Your task to perform on an android device: open device folders in google photos Image 0: 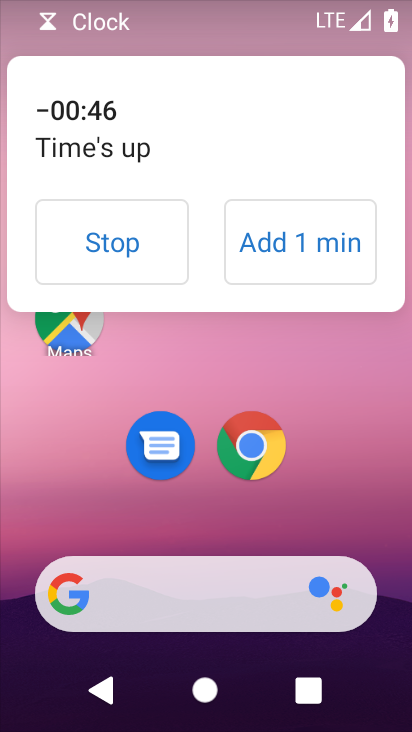
Step 0: press home button
Your task to perform on an android device: open device folders in google photos Image 1: 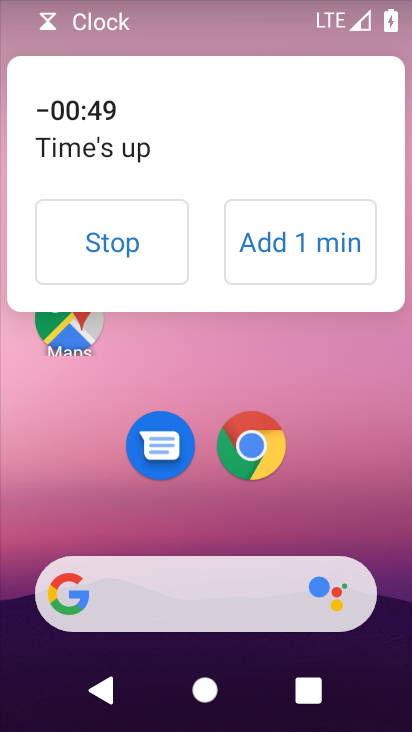
Step 1: click (101, 244)
Your task to perform on an android device: open device folders in google photos Image 2: 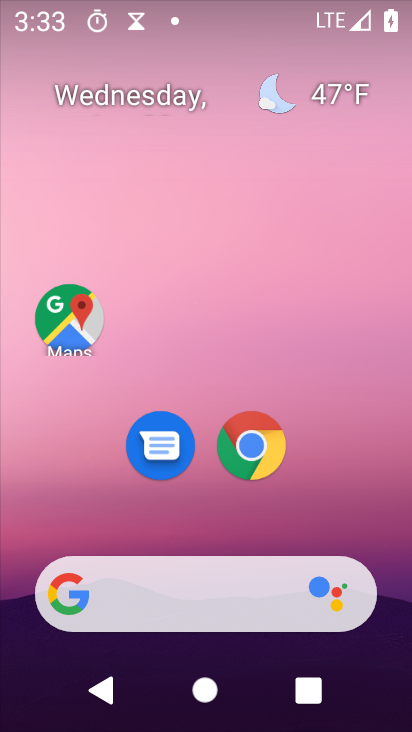
Step 2: drag from (383, 568) to (375, 8)
Your task to perform on an android device: open device folders in google photos Image 3: 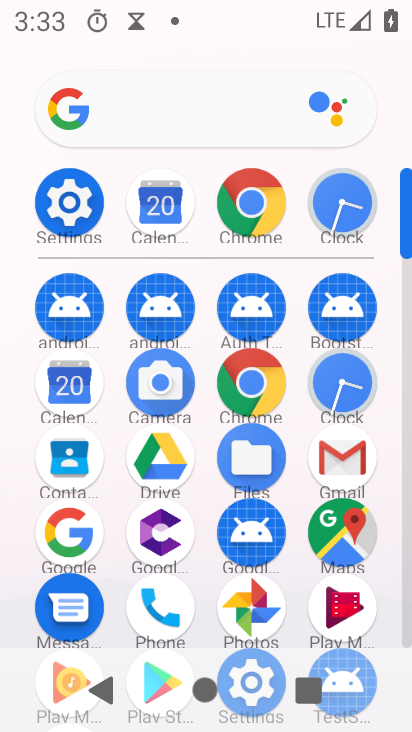
Step 3: click (254, 598)
Your task to perform on an android device: open device folders in google photos Image 4: 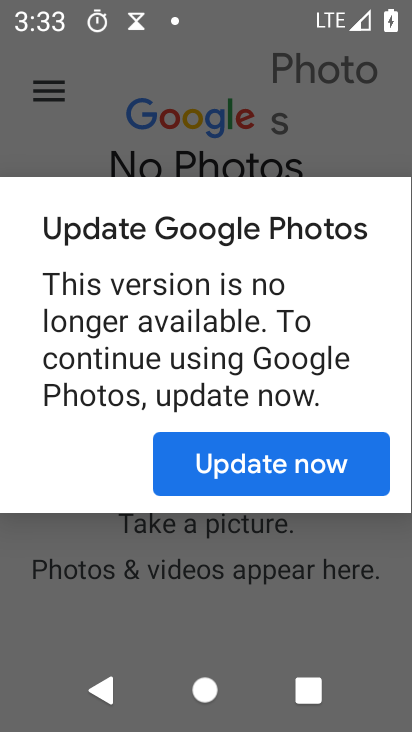
Step 4: click (287, 475)
Your task to perform on an android device: open device folders in google photos Image 5: 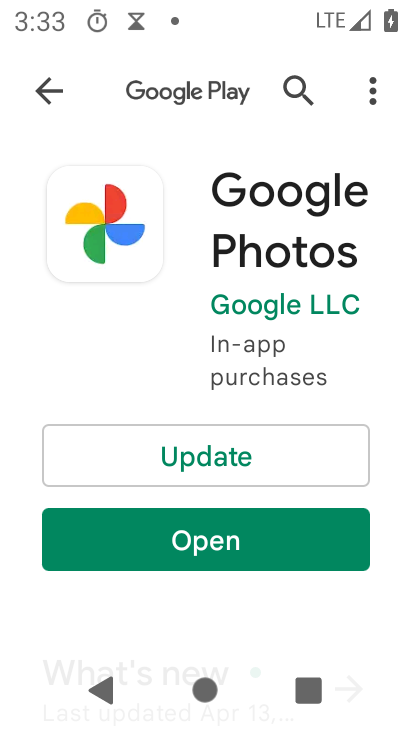
Step 5: click (204, 543)
Your task to perform on an android device: open device folders in google photos Image 6: 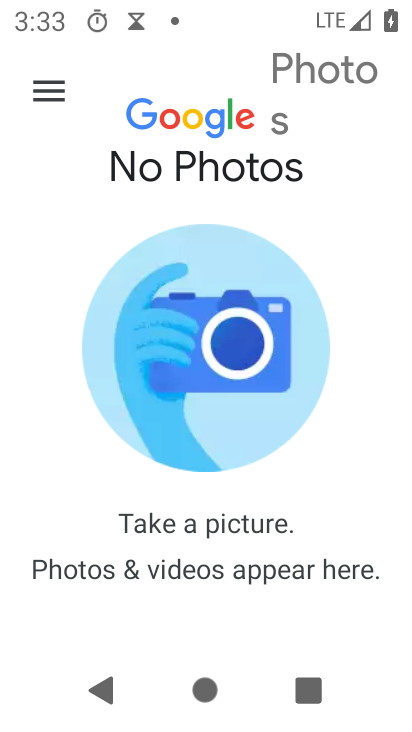
Step 6: click (59, 96)
Your task to perform on an android device: open device folders in google photos Image 7: 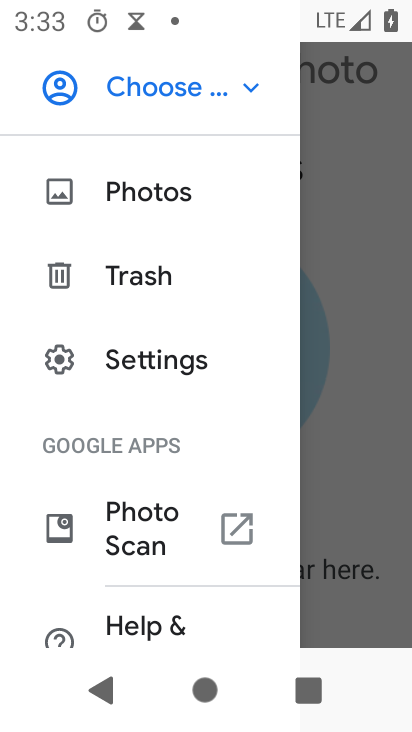
Step 7: drag from (208, 255) to (197, 503)
Your task to perform on an android device: open device folders in google photos Image 8: 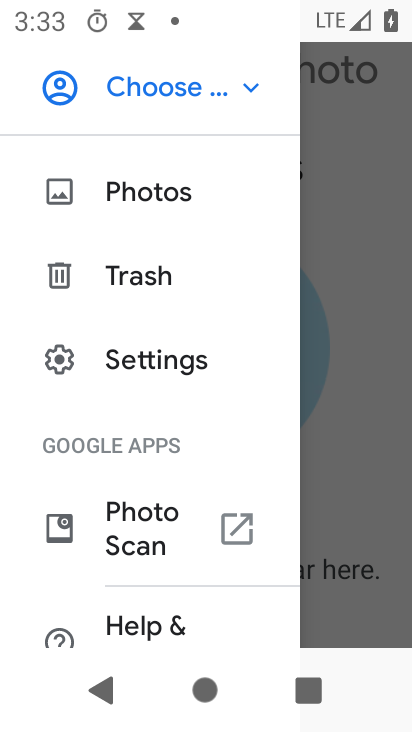
Step 8: drag from (179, 222) to (172, 510)
Your task to perform on an android device: open device folders in google photos Image 9: 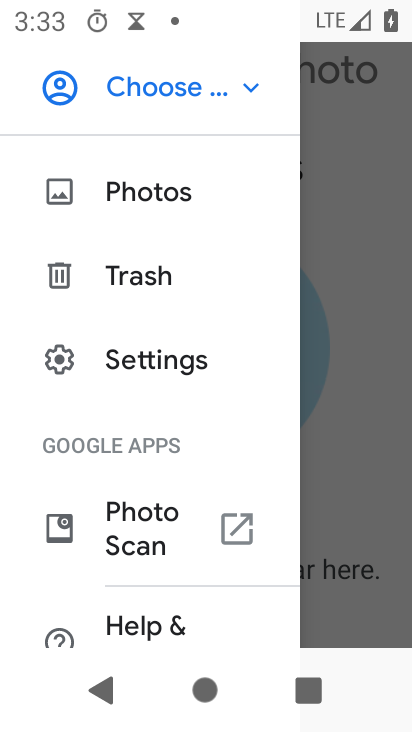
Step 9: drag from (168, 335) to (168, 174)
Your task to perform on an android device: open device folders in google photos Image 10: 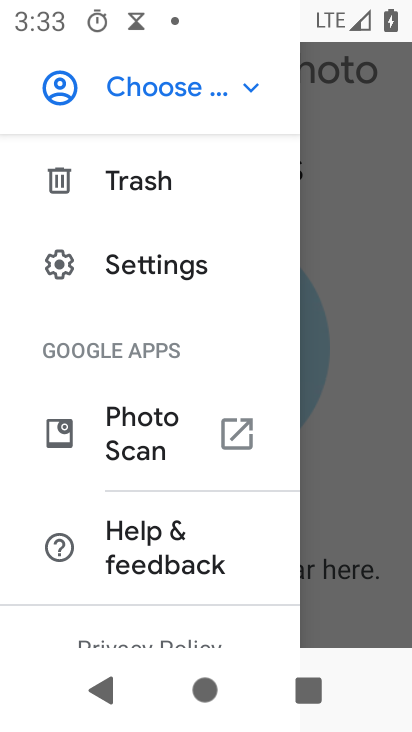
Step 10: drag from (122, 493) to (152, 218)
Your task to perform on an android device: open device folders in google photos Image 11: 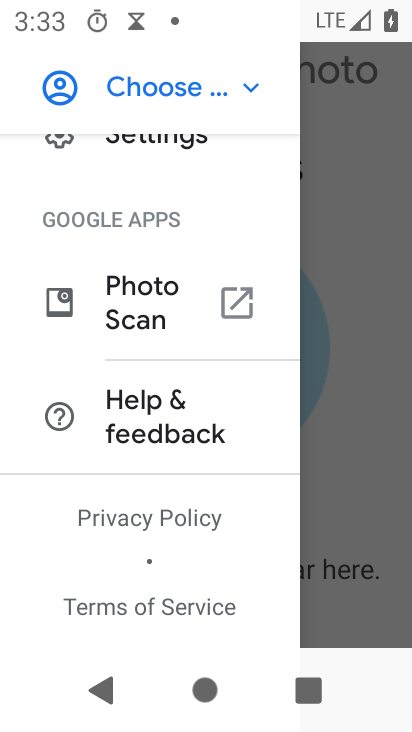
Step 11: drag from (145, 253) to (169, 599)
Your task to perform on an android device: open device folders in google photos Image 12: 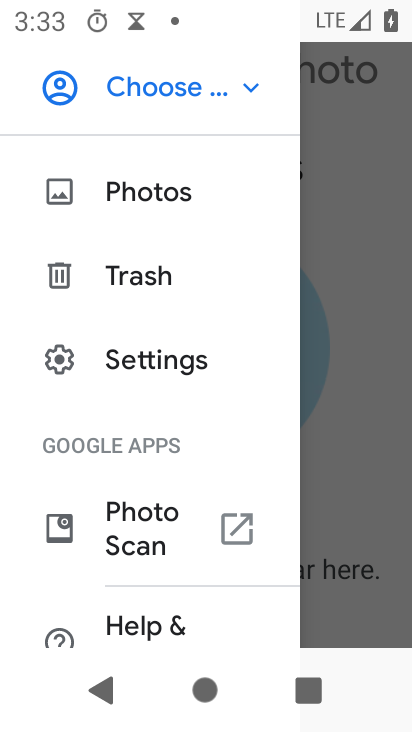
Step 12: drag from (137, 228) to (153, 534)
Your task to perform on an android device: open device folders in google photos Image 13: 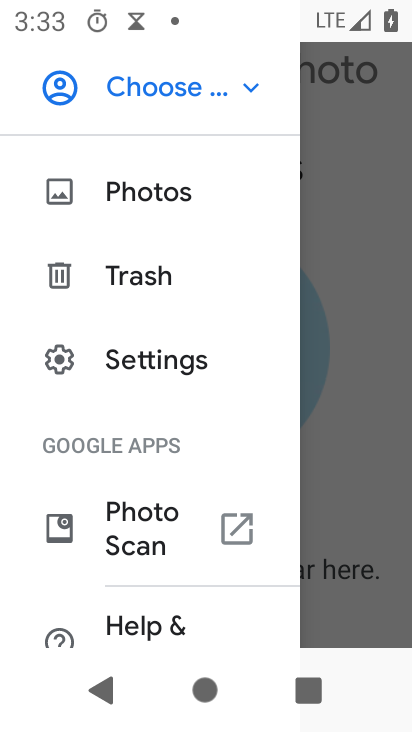
Step 13: drag from (230, 272) to (165, 515)
Your task to perform on an android device: open device folders in google photos Image 14: 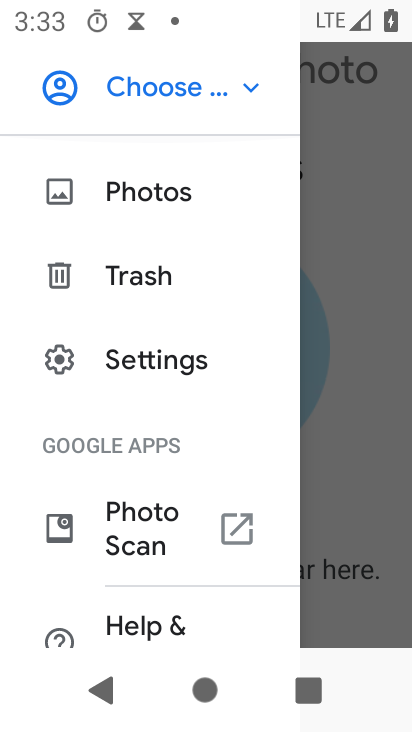
Step 14: click (256, 90)
Your task to perform on an android device: open device folders in google photos Image 15: 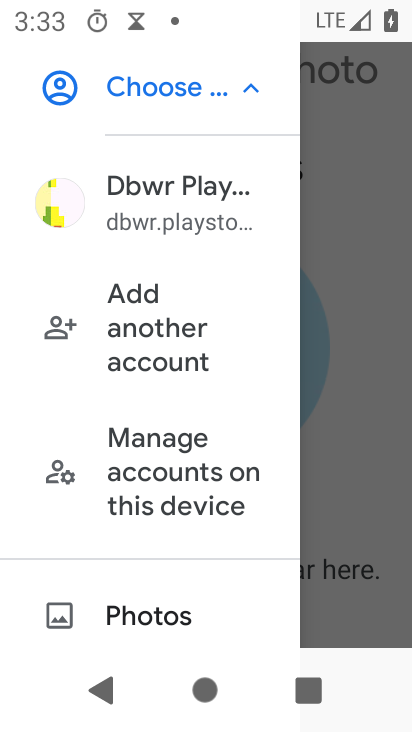
Step 15: task complete